Your task to perform on an android device: What's on my calendar today? Image 0: 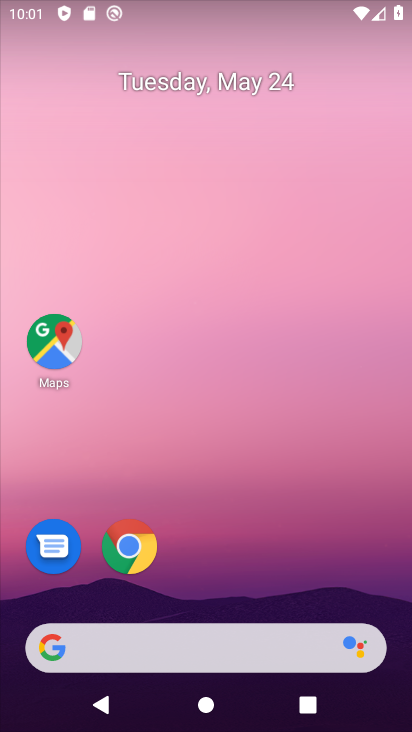
Step 0: drag from (262, 493) to (235, 100)
Your task to perform on an android device: What's on my calendar today? Image 1: 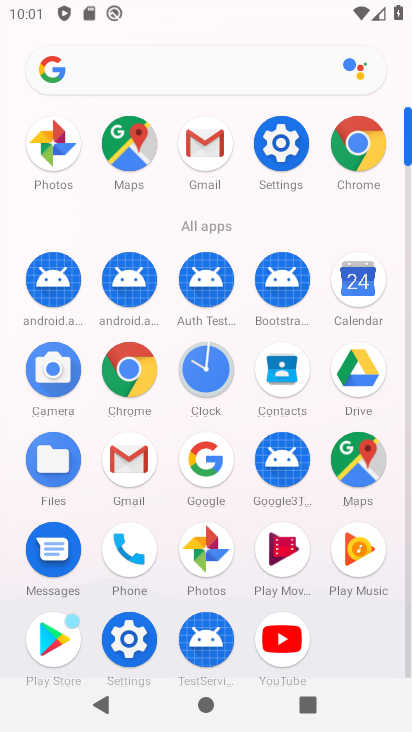
Step 1: click (355, 275)
Your task to perform on an android device: What's on my calendar today? Image 2: 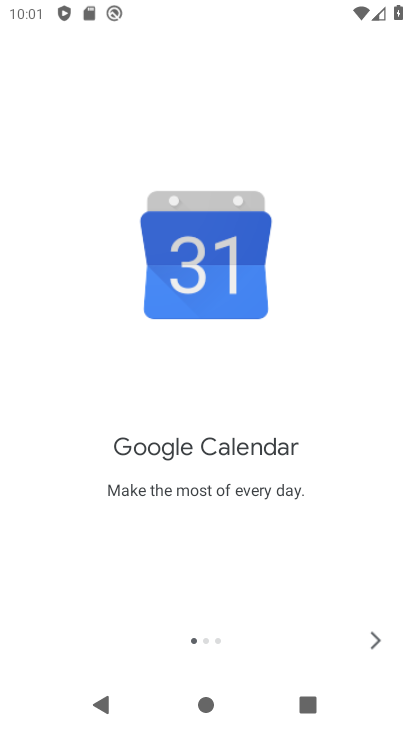
Step 2: click (368, 641)
Your task to perform on an android device: What's on my calendar today? Image 3: 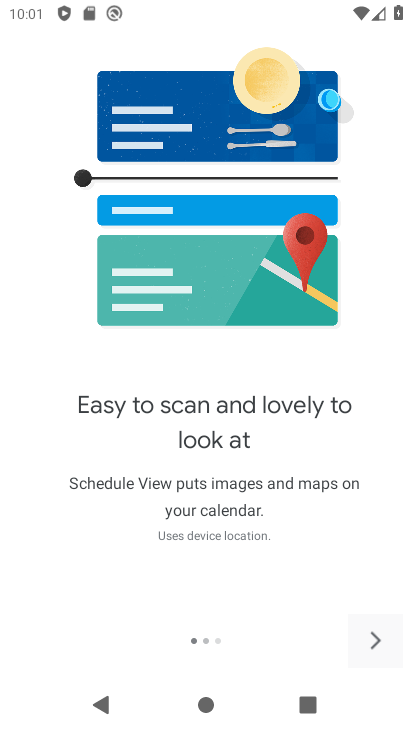
Step 3: click (368, 641)
Your task to perform on an android device: What's on my calendar today? Image 4: 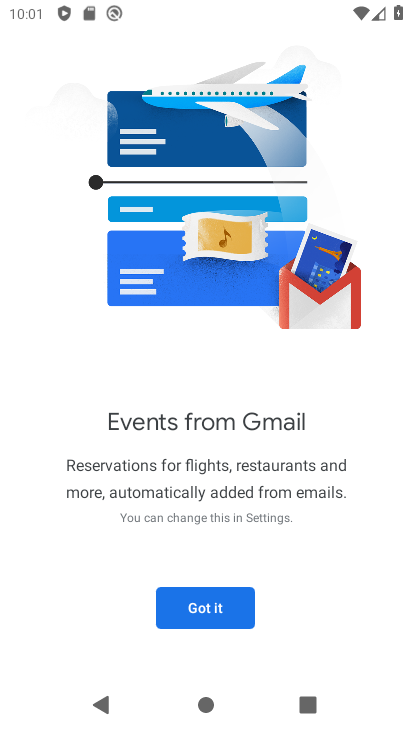
Step 4: click (217, 610)
Your task to perform on an android device: What's on my calendar today? Image 5: 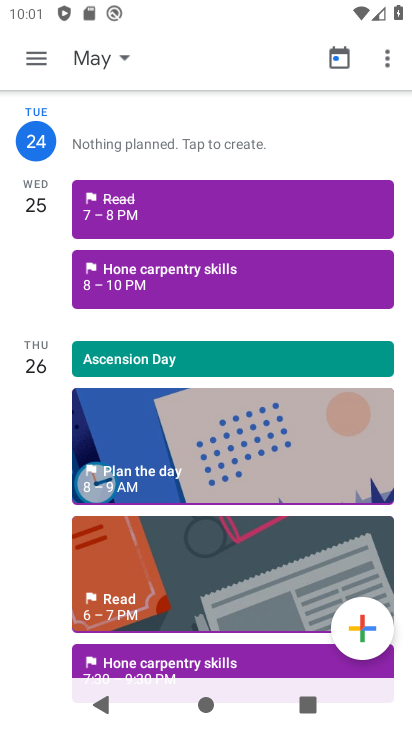
Step 5: click (101, 71)
Your task to perform on an android device: What's on my calendar today? Image 6: 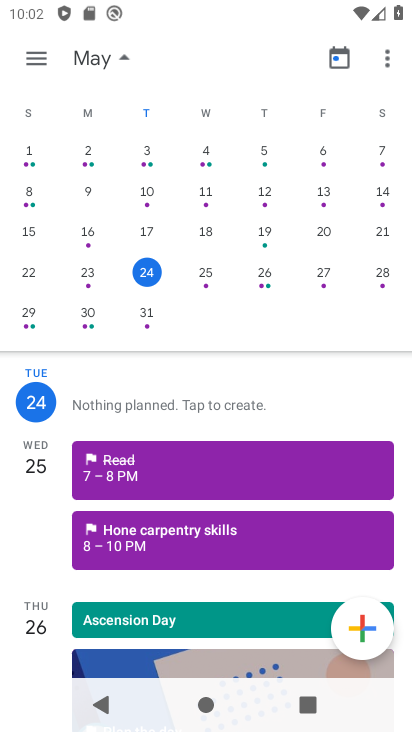
Step 6: click (143, 270)
Your task to perform on an android device: What's on my calendar today? Image 7: 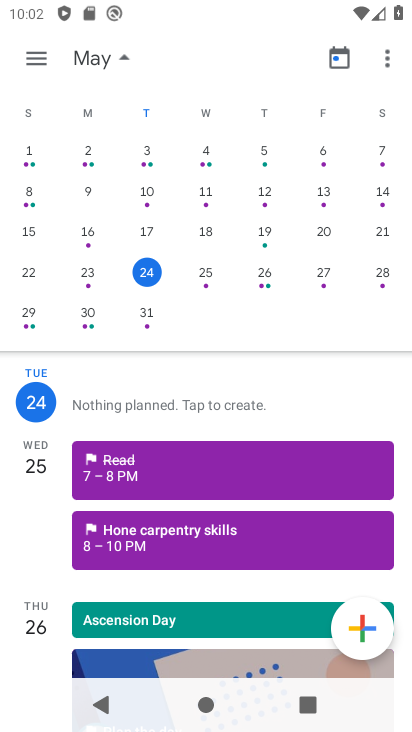
Step 7: task complete